Your task to perform on an android device: turn on airplane mode Image 0: 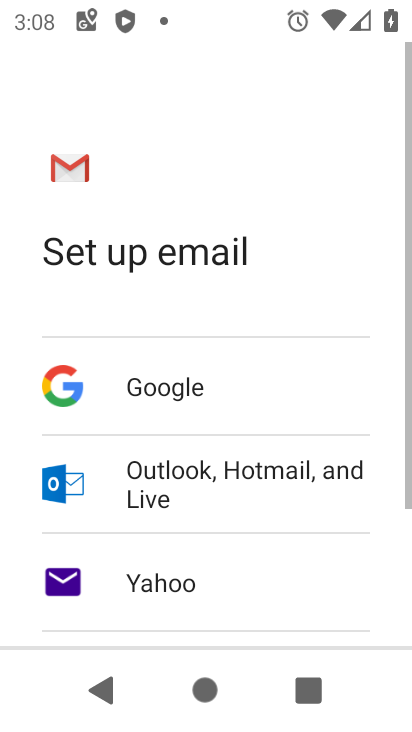
Step 0: press home button
Your task to perform on an android device: turn on airplane mode Image 1: 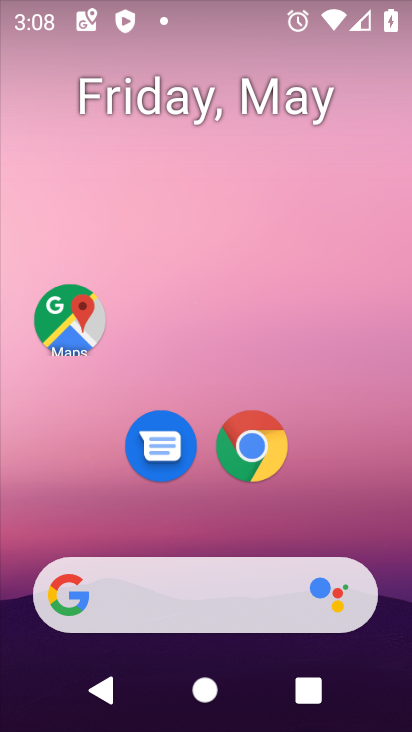
Step 1: drag from (406, 586) to (276, 75)
Your task to perform on an android device: turn on airplane mode Image 2: 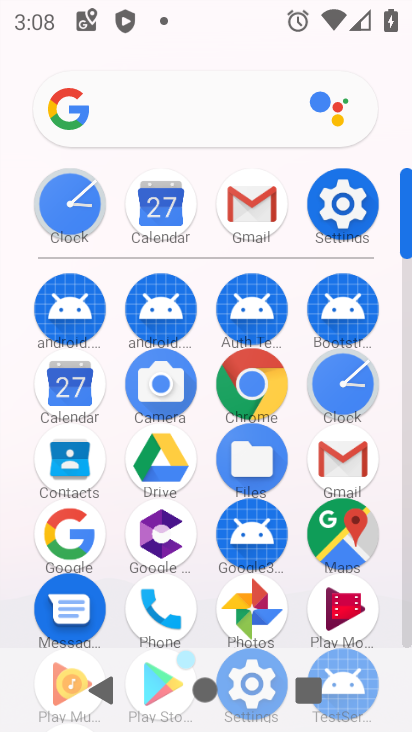
Step 2: click (349, 182)
Your task to perform on an android device: turn on airplane mode Image 3: 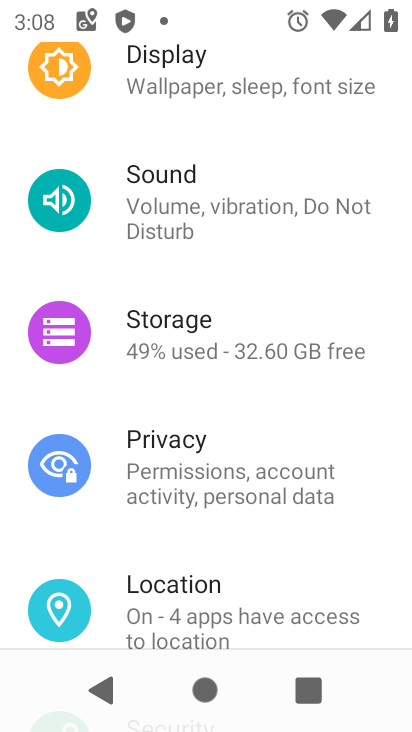
Step 3: drag from (287, 138) to (273, 579)
Your task to perform on an android device: turn on airplane mode Image 4: 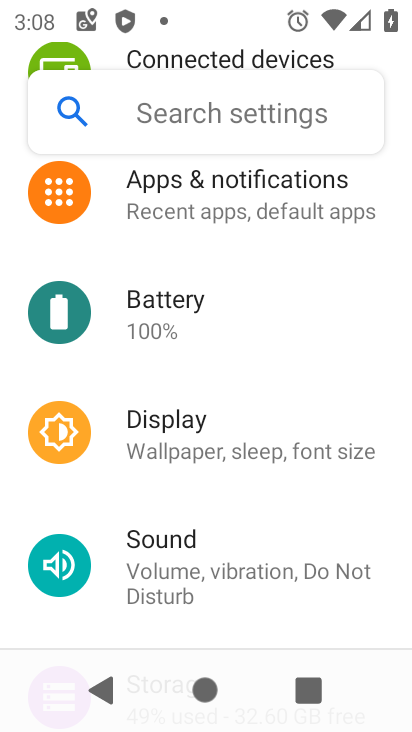
Step 4: drag from (237, 258) to (222, 647)
Your task to perform on an android device: turn on airplane mode Image 5: 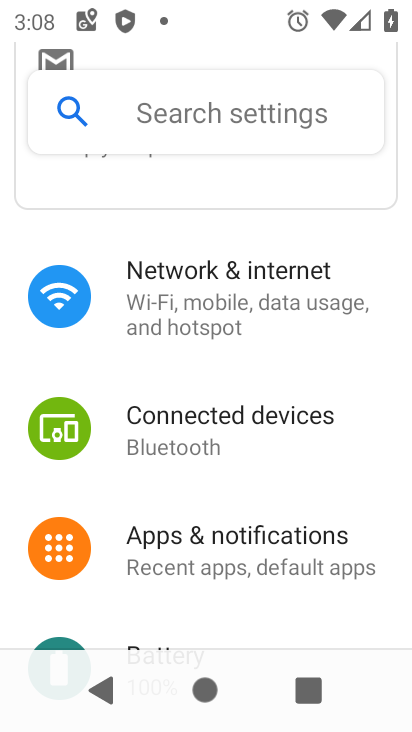
Step 5: click (256, 322)
Your task to perform on an android device: turn on airplane mode Image 6: 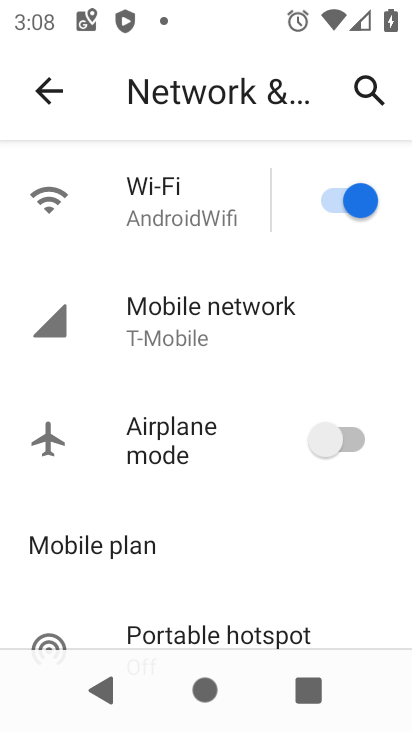
Step 6: click (335, 447)
Your task to perform on an android device: turn on airplane mode Image 7: 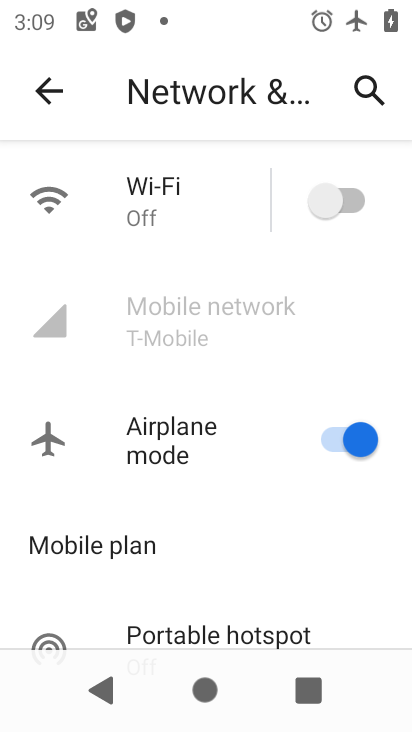
Step 7: task complete